Your task to perform on an android device: turn on bluetooth scan Image 0: 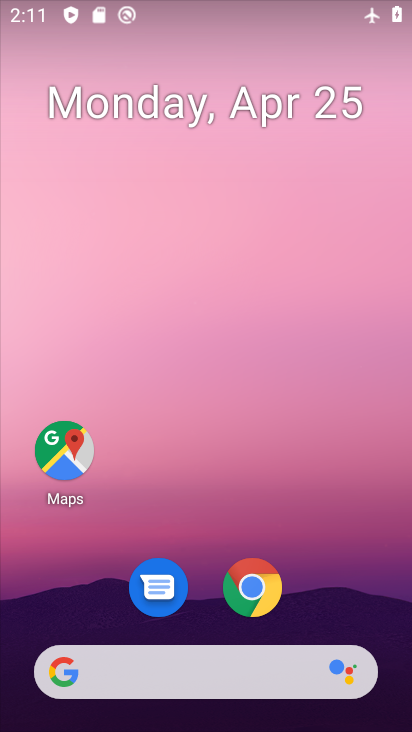
Step 0: drag from (368, 592) to (351, 164)
Your task to perform on an android device: turn on bluetooth scan Image 1: 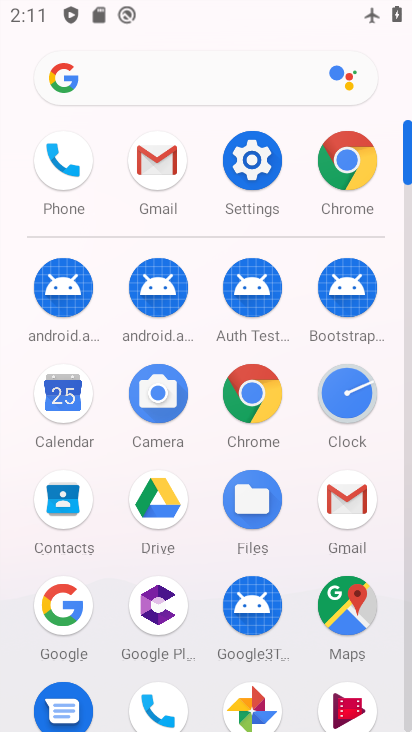
Step 1: click (264, 169)
Your task to perform on an android device: turn on bluetooth scan Image 2: 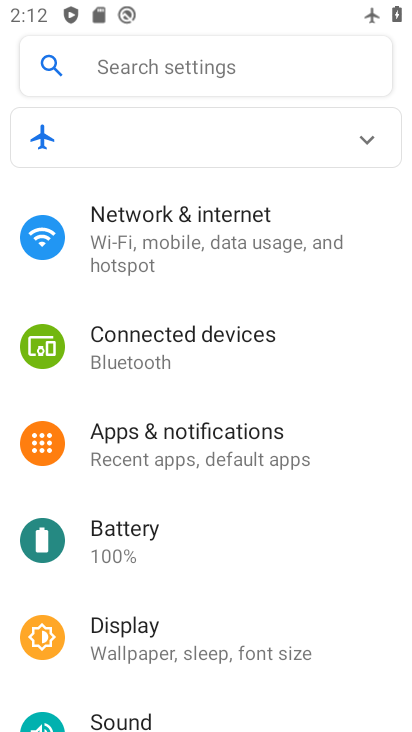
Step 2: drag from (258, 542) to (264, 165)
Your task to perform on an android device: turn on bluetooth scan Image 3: 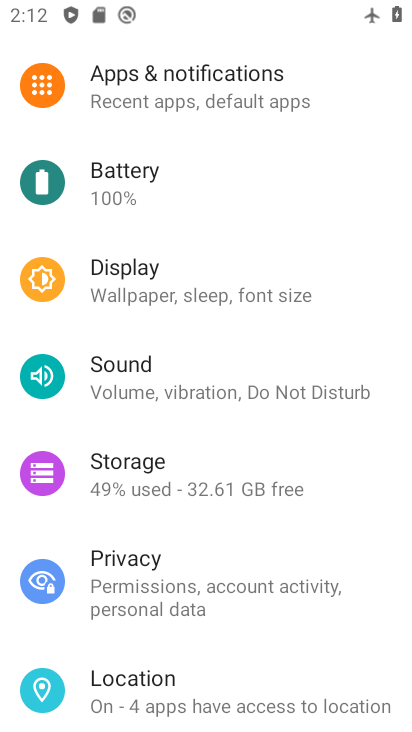
Step 3: drag from (255, 559) to (299, 230)
Your task to perform on an android device: turn on bluetooth scan Image 4: 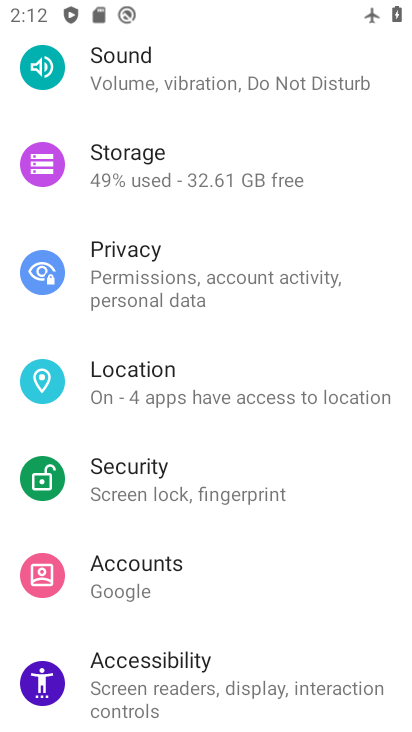
Step 4: click (228, 397)
Your task to perform on an android device: turn on bluetooth scan Image 5: 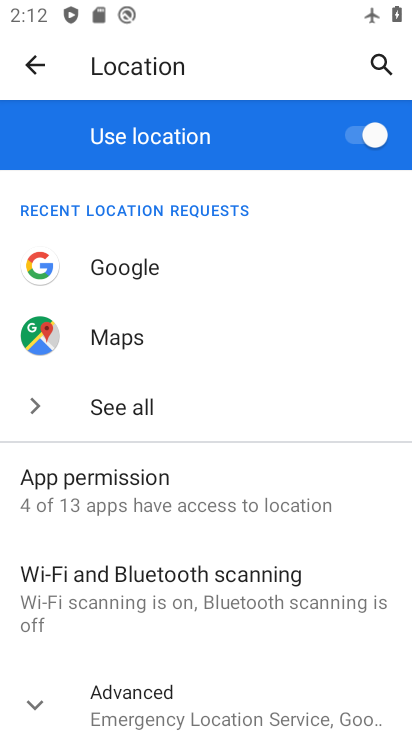
Step 5: click (176, 593)
Your task to perform on an android device: turn on bluetooth scan Image 6: 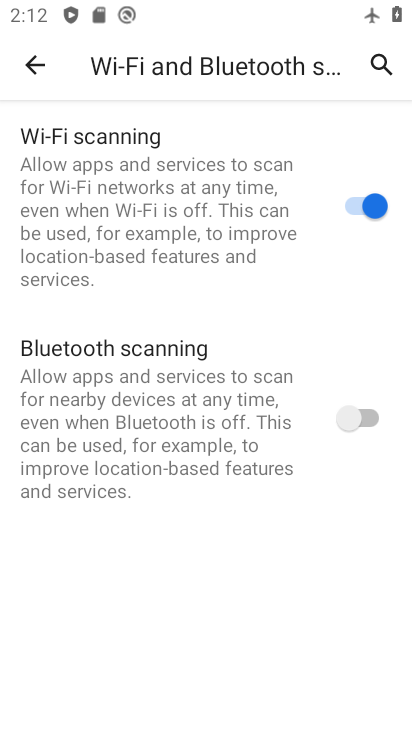
Step 6: click (346, 410)
Your task to perform on an android device: turn on bluetooth scan Image 7: 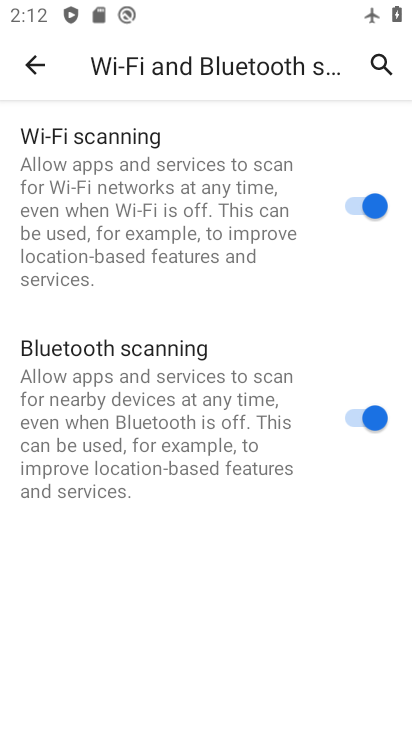
Step 7: task complete